Your task to perform on an android device: Open Reddit.com Image 0: 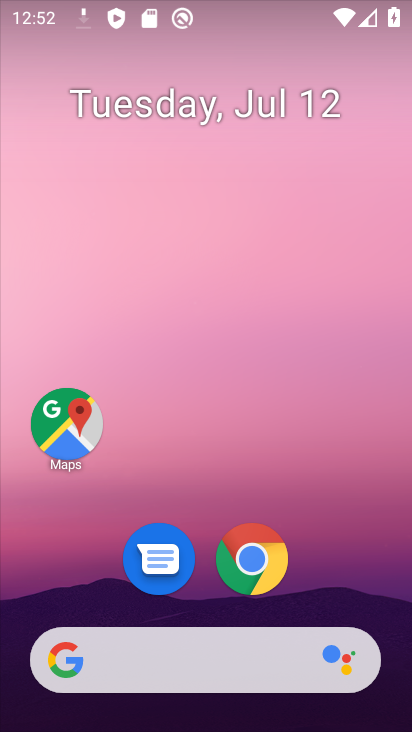
Step 0: drag from (364, 592) to (353, 79)
Your task to perform on an android device: Open Reddit.com Image 1: 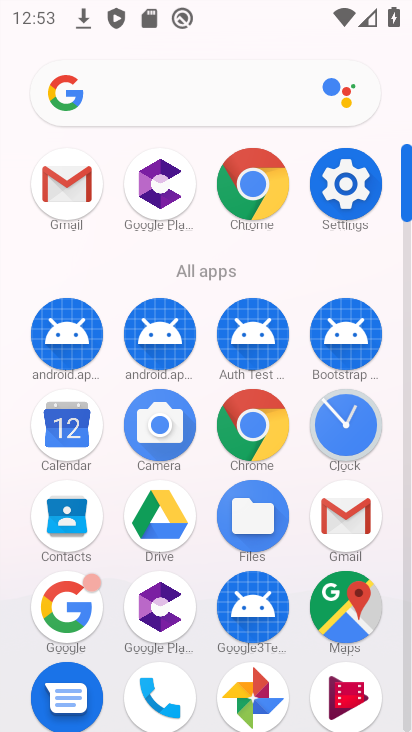
Step 1: click (272, 439)
Your task to perform on an android device: Open Reddit.com Image 2: 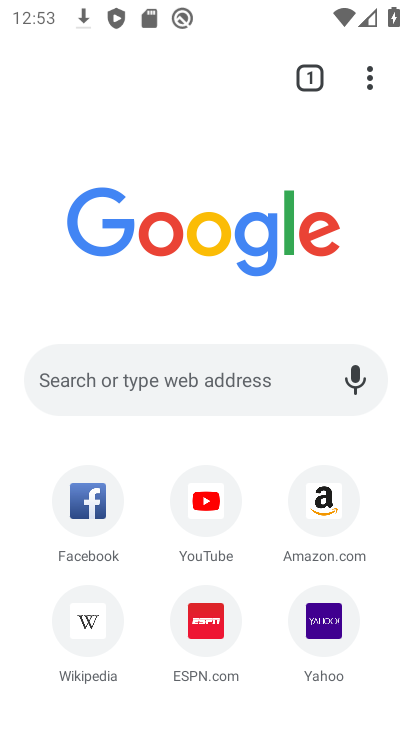
Step 2: click (176, 394)
Your task to perform on an android device: Open Reddit.com Image 3: 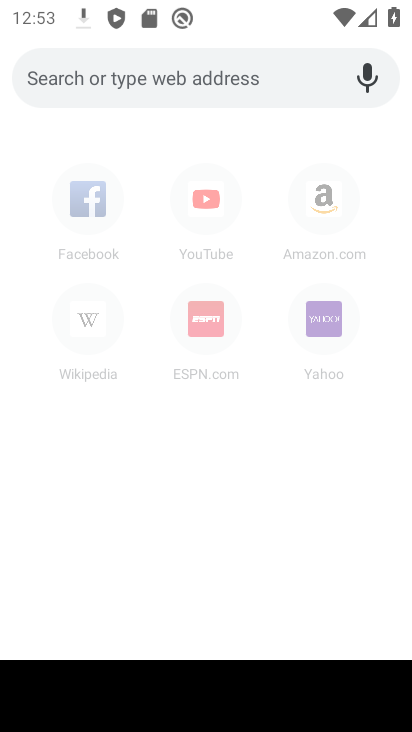
Step 3: type "reddit.com"
Your task to perform on an android device: Open Reddit.com Image 4: 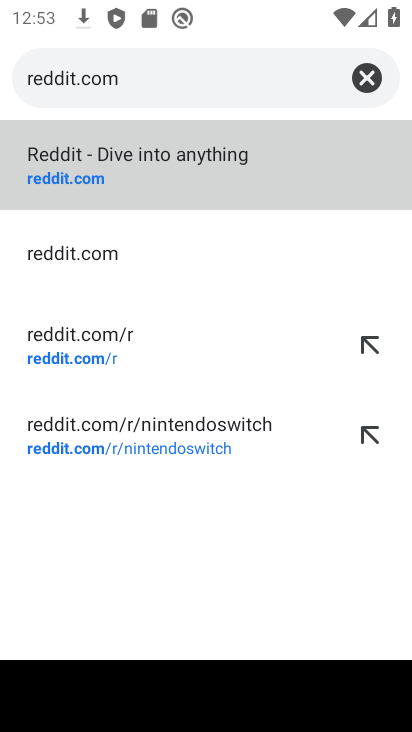
Step 4: click (121, 161)
Your task to perform on an android device: Open Reddit.com Image 5: 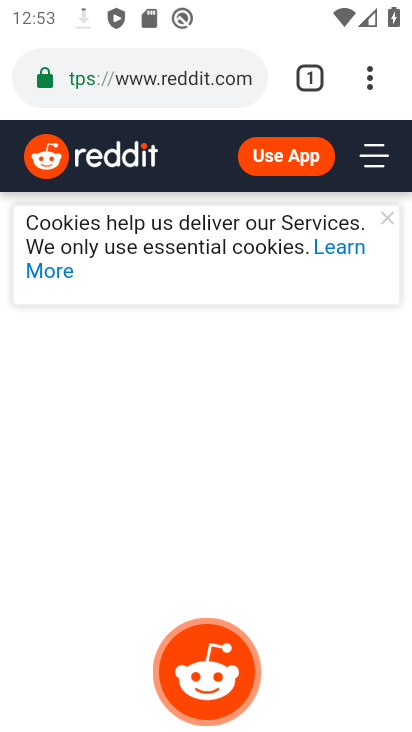
Step 5: task complete